Your task to perform on an android device: Open Wikipedia Image 0: 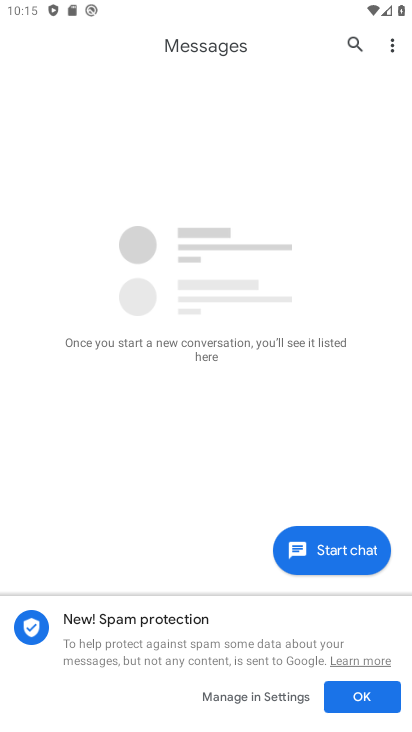
Step 0: press home button
Your task to perform on an android device: Open Wikipedia Image 1: 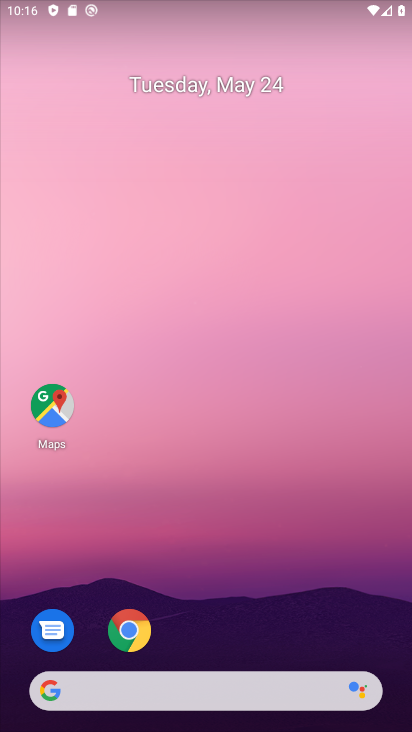
Step 1: click (130, 620)
Your task to perform on an android device: Open Wikipedia Image 2: 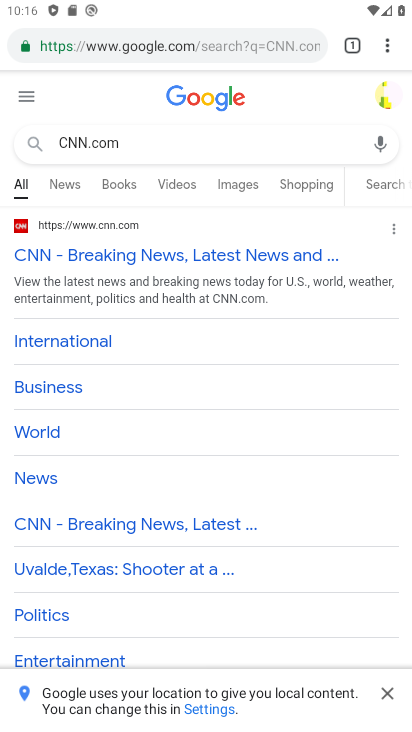
Step 2: click (355, 47)
Your task to perform on an android device: Open Wikipedia Image 3: 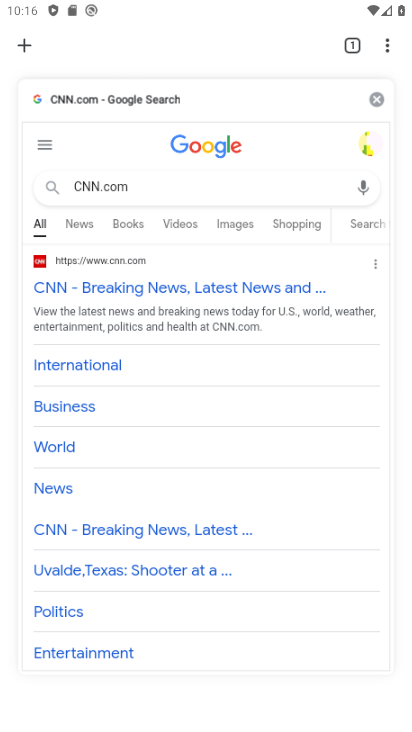
Step 3: click (371, 96)
Your task to perform on an android device: Open Wikipedia Image 4: 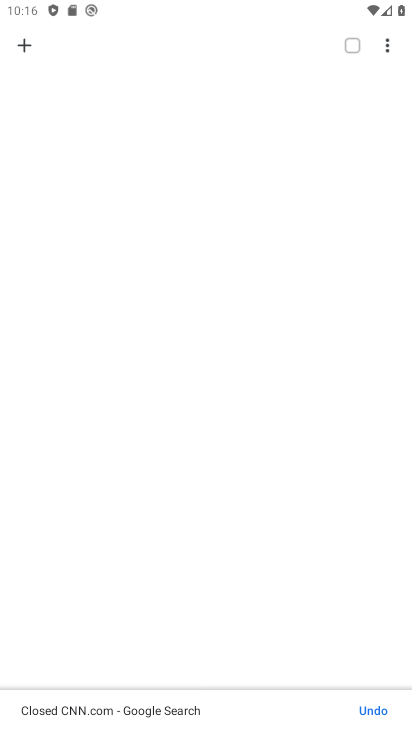
Step 4: click (32, 47)
Your task to perform on an android device: Open Wikipedia Image 5: 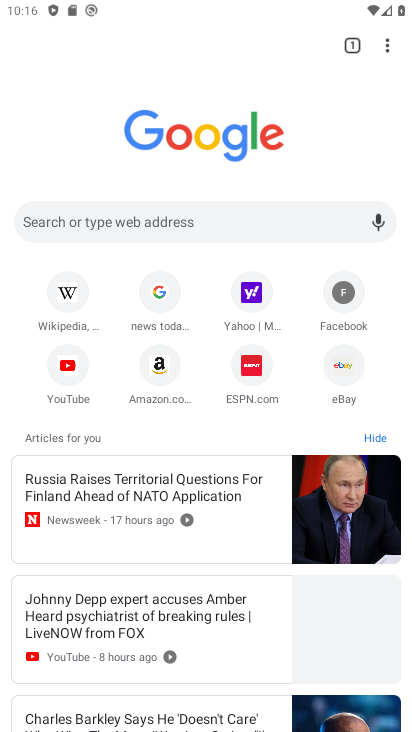
Step 5: click (68, 287)
Your task to perform on an android device: Open Wikipedia Image 6: 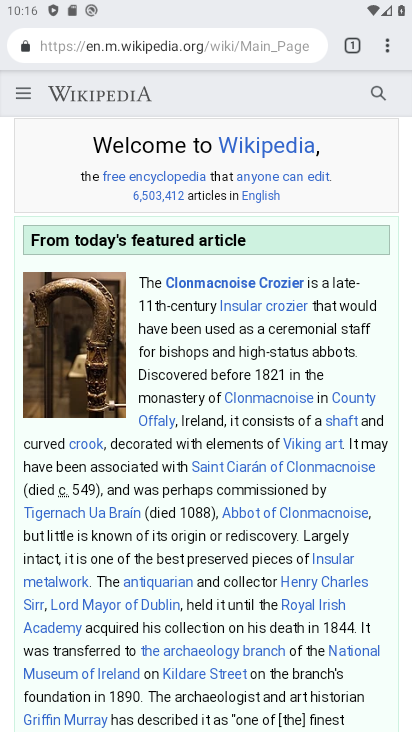
Step 6: task complete